Your task to perform on an android device: Open Wikipedia Image 0: 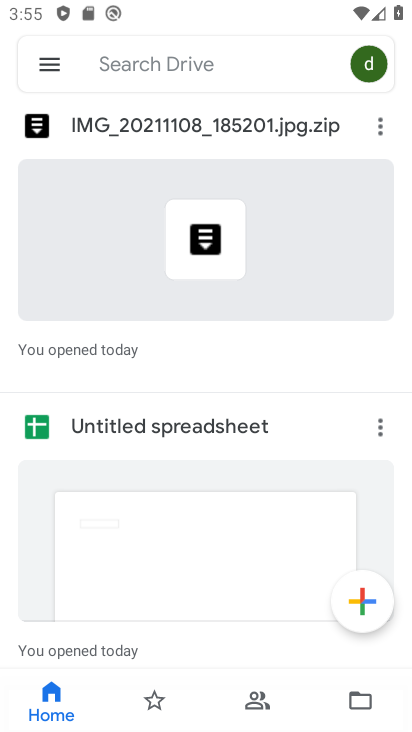
Step 0: press home button
Your task to perform on an android device: Open Wikipedia Image 1: 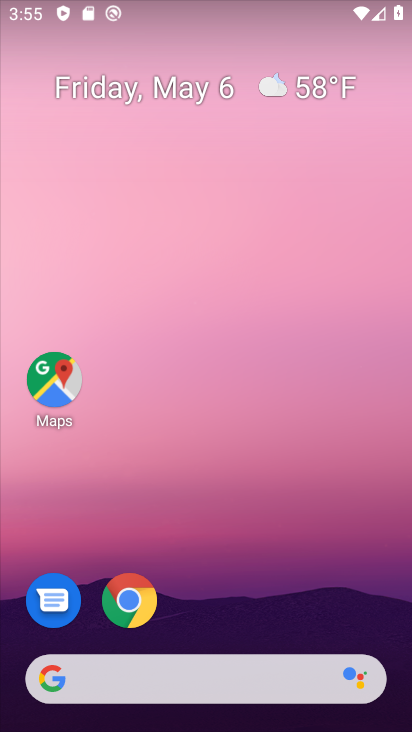
Step 1: click (124, 603)
Your task to perform on an android device: Open Wikipedia Image 2: 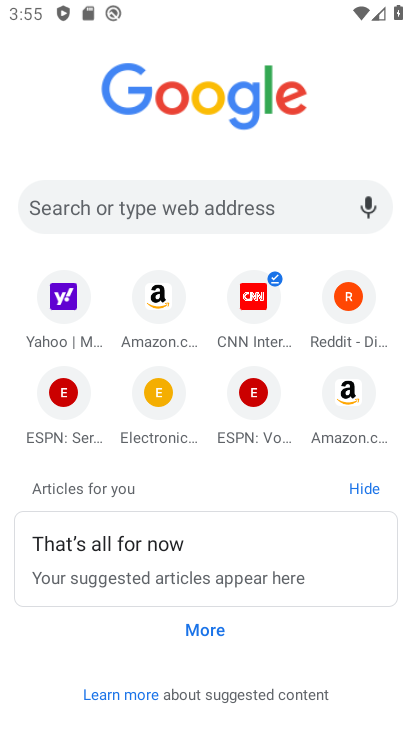
Step 2: click (204, 223)
Your task to perform on an android device: Open Wikipedia Image 3: 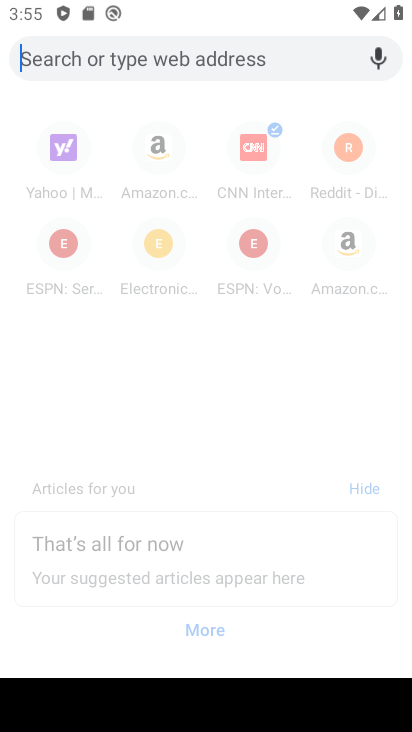
Step 3: type "wikipedia"
Your task to perform on an android device: Open Wikipedia Image 4: 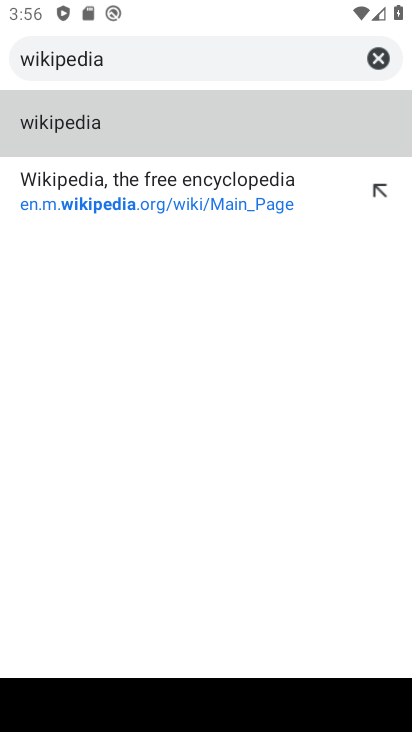
Step 4: click (177, 181)
Your task to perform on an android device: Open Wikipedia Image 5: 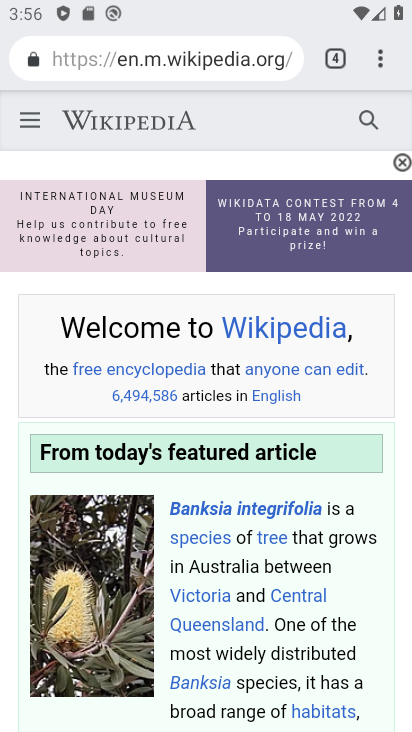
Step 5: task complete